Your task to perform on an android device: open app "TextNow: Call + Text Unlimited" (install if not already installed) Image 0: 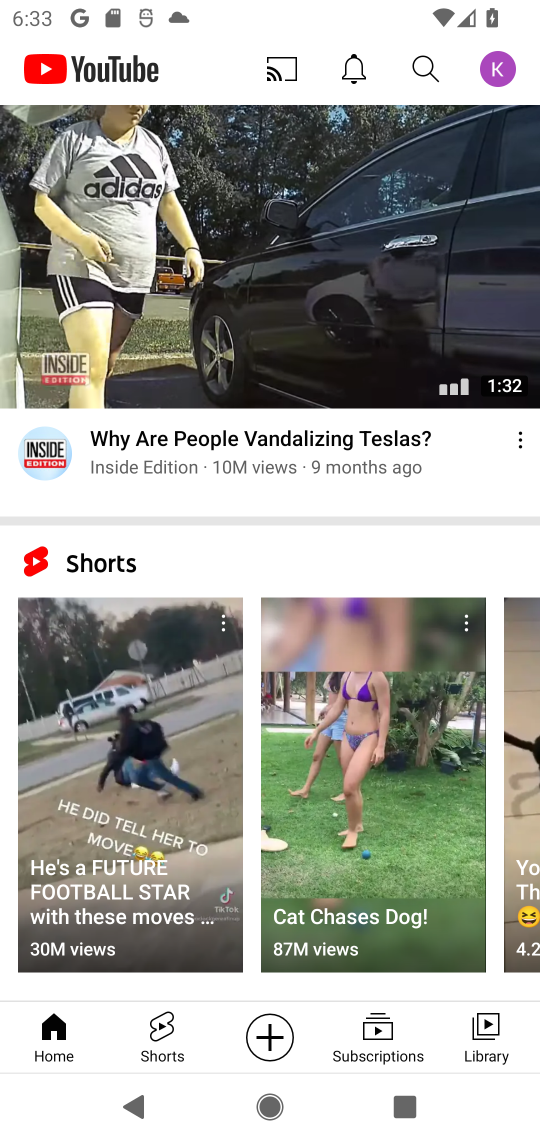
Step 0: press home button
Your task to perform on an android device: open app "TextNow: Call + Text Unlimited" (install if not already installed) Image 1: 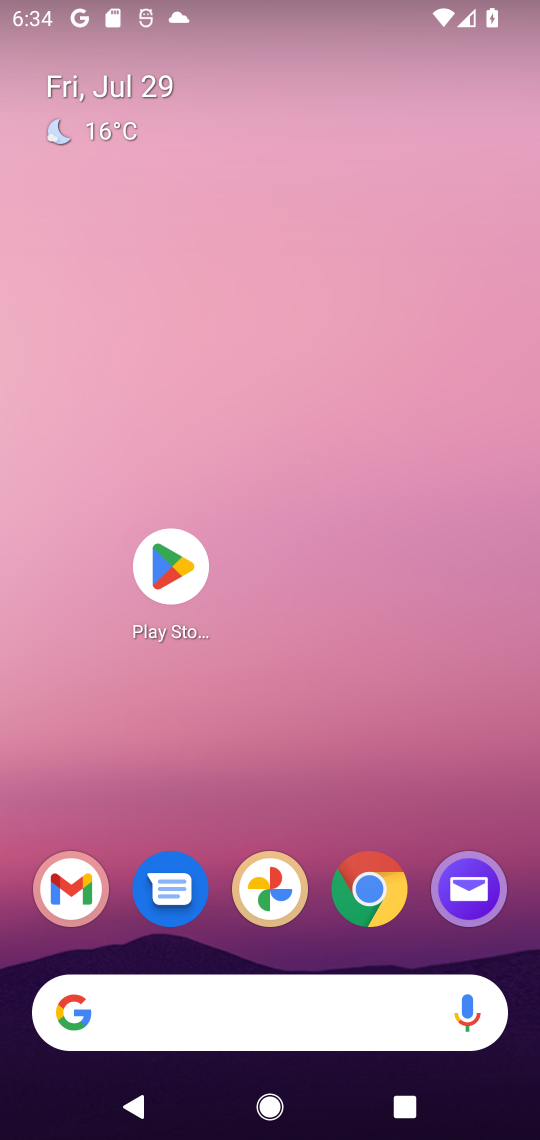
Step 1: click (172, 562)
Your task to perform on an android device: open app "TextNow: Call + Text Unlimited" (install if not already installed) Image 2: 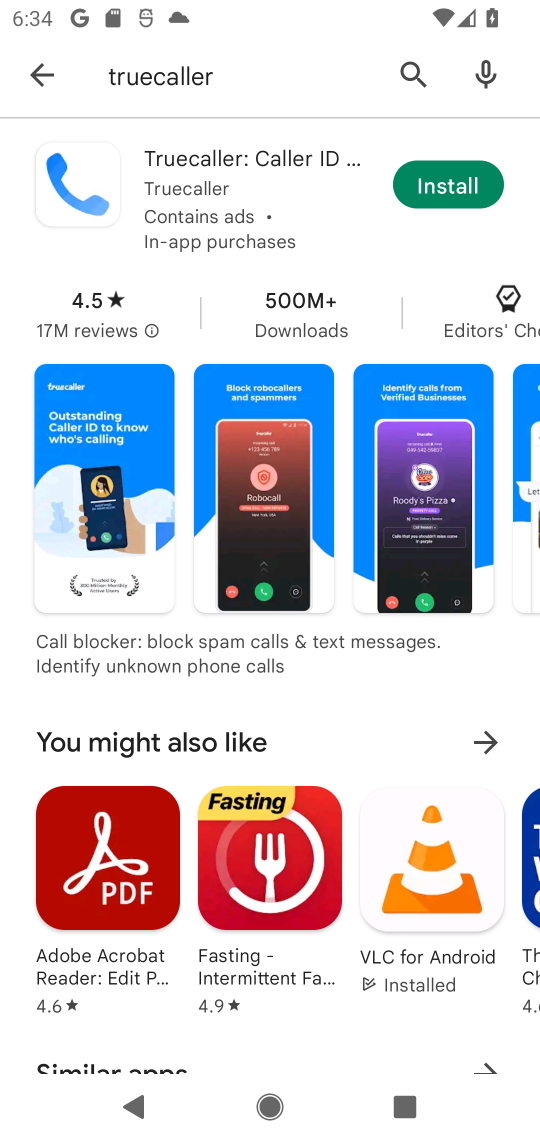
Step 2: click (406, 70)
Your task to perform on an android device: open app "TextNow: Call + Text Unlimited" (install if not already installed) Image 3: 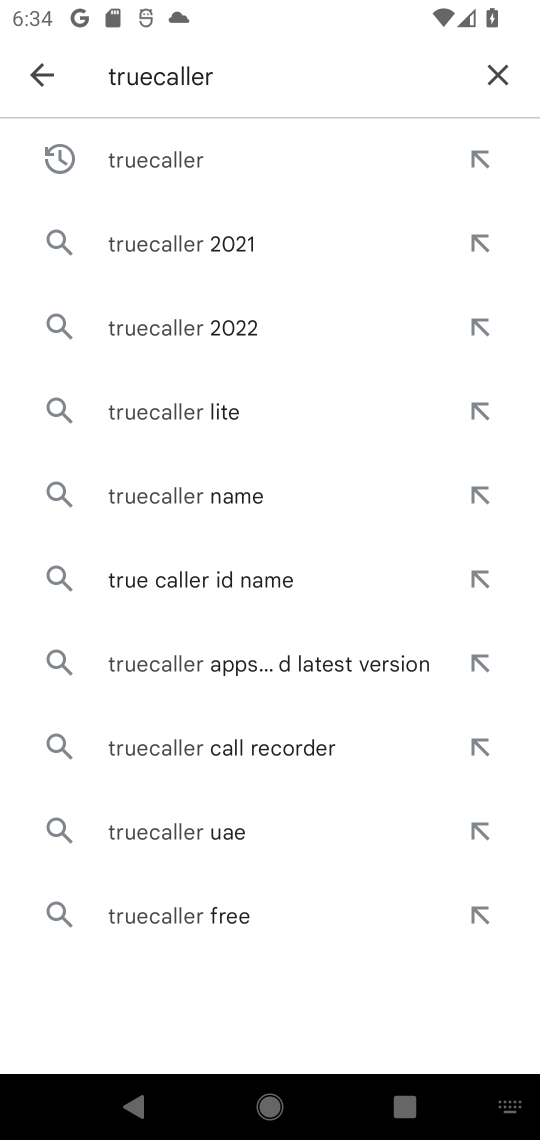
Step 3: click (496, 71)
Your task to perform on an android device: open app "TextNow: Call + Text Unlimited" (install if not already installed) Image 4: 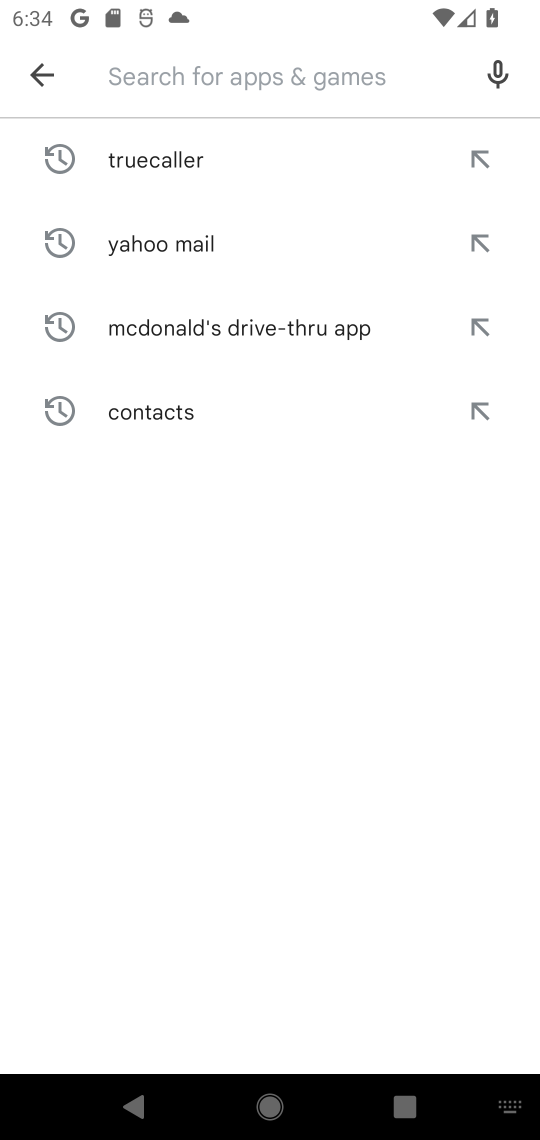
Step 4: type "TextNow: Call + Text Unlimited"
Your task to perform on an android device: open app "TextNow: Call + Text Unlimited" (install if not already installed) Image 5: 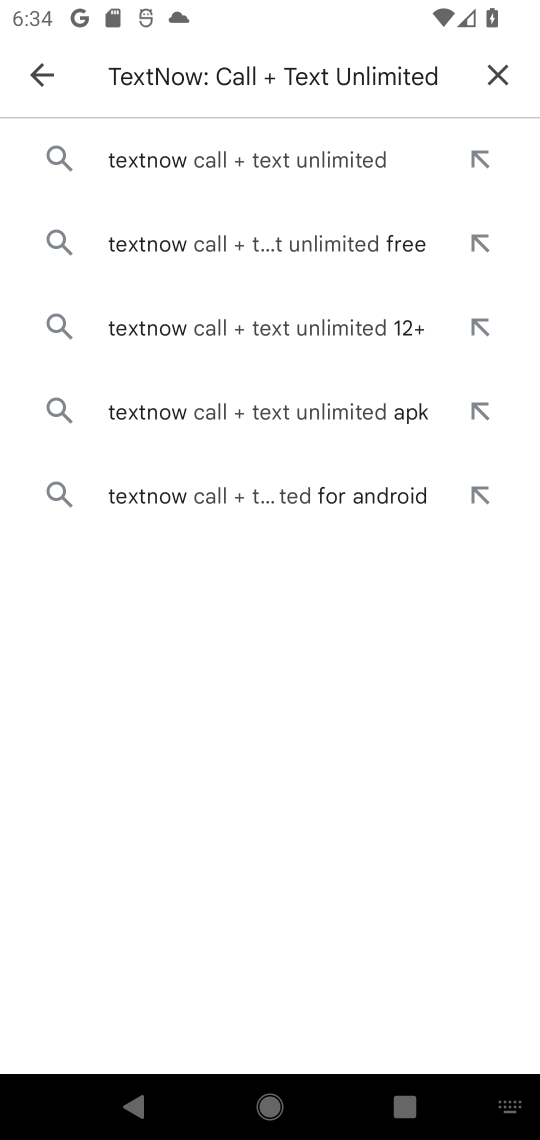
Step 5: click (306, 162)
Your task to perform on an android device: open app "TextNow: Call + Text Unlimited" (install if not already installed) Image 6: 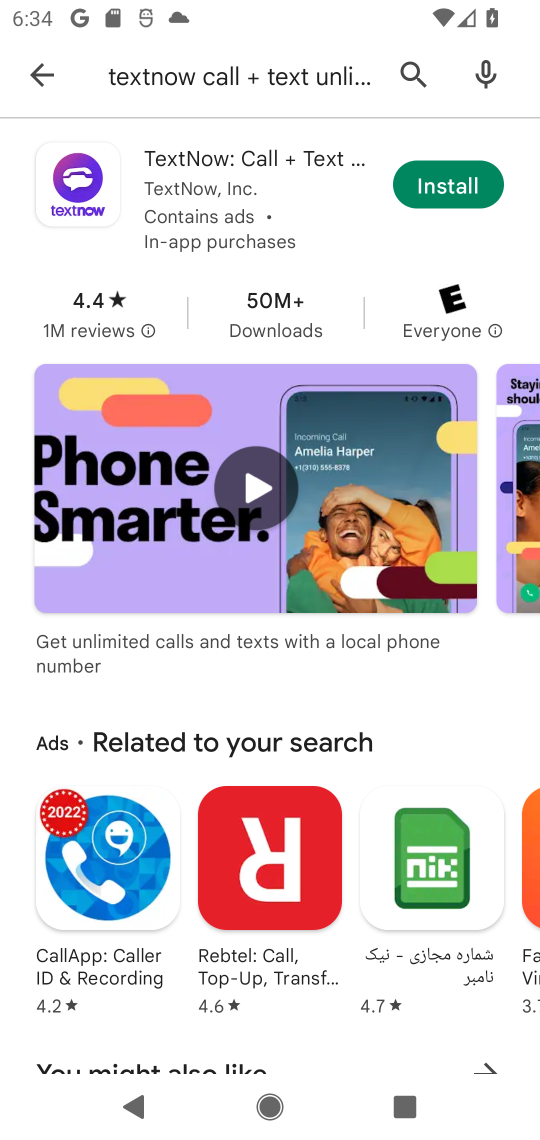
Step 6: click (446, 191)
Your task to perform on an android device: open app "TextNow: Call + Text Unlimited" (install if not already installed) Image 7: 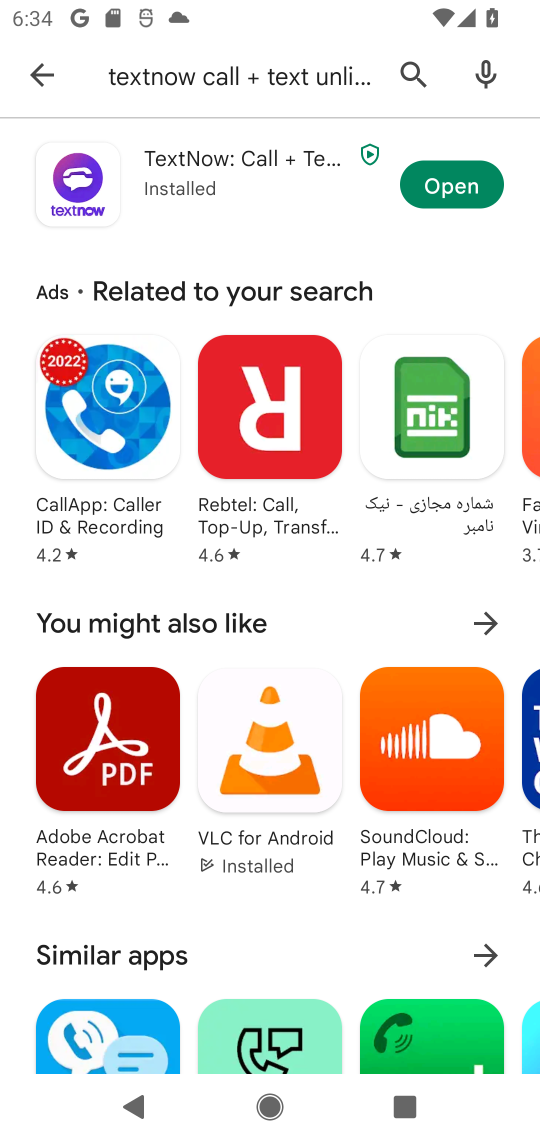
Step 7: click (436, 180)
Your task to perform on an android device: open app "TextNow: Call + Text Unlimited" (install if not already installed) Image 8: 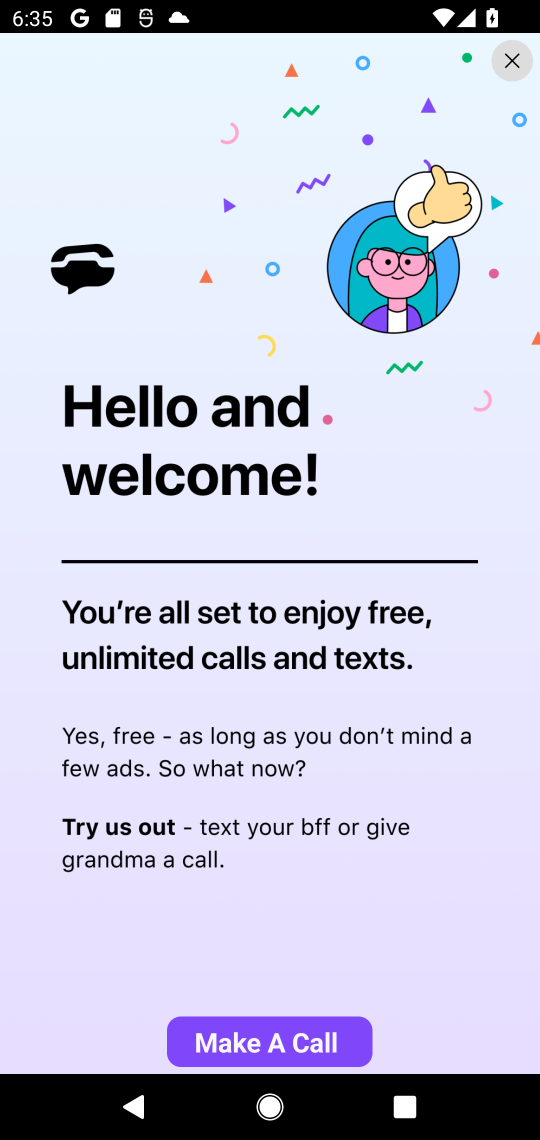
Step 8: task complete